Your task to perform on an android device: star an email in the gmail app Image 0: 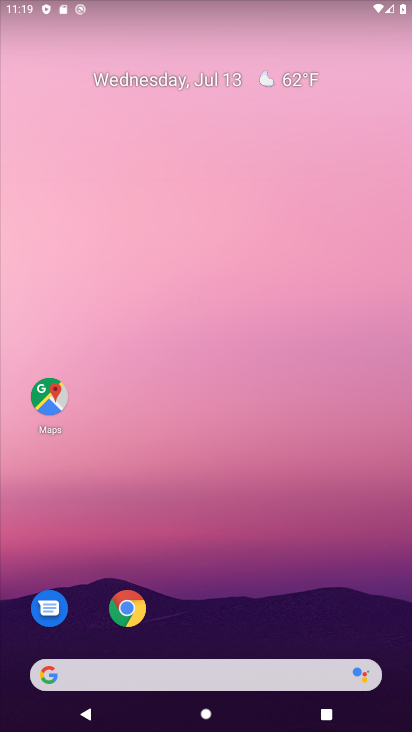
Step 0: drag from (232, 683) to (238, 90)
Your task to perform on an android device: star an email in the gmail app Image 1: 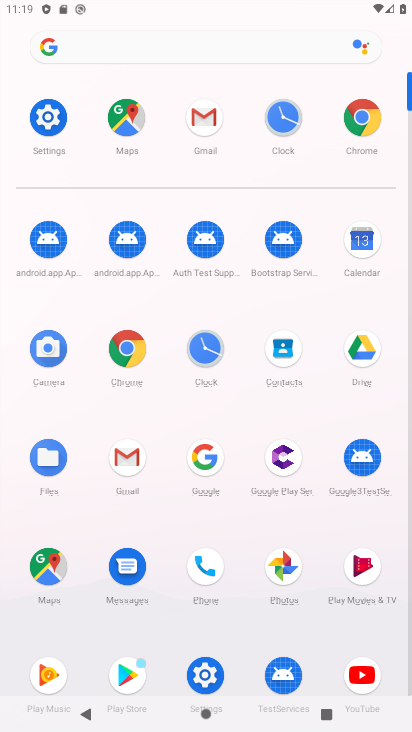
Step 1: click (132, 455)
Your task to perform on an android device: star an email in the gmail app Image 2: 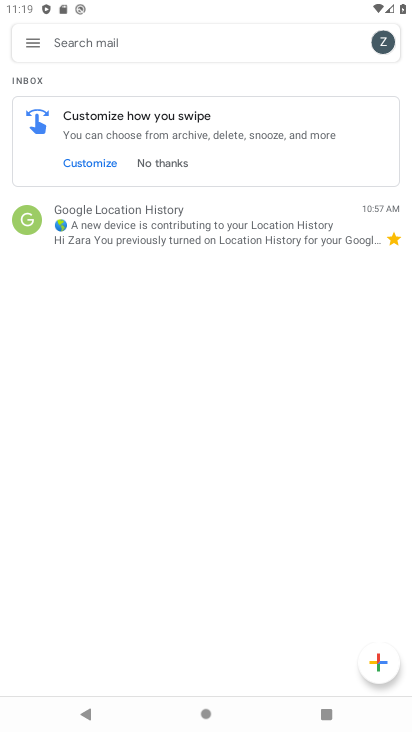
Step 2: task complete